Your task to perform on an android device: Go to settings Image 0: 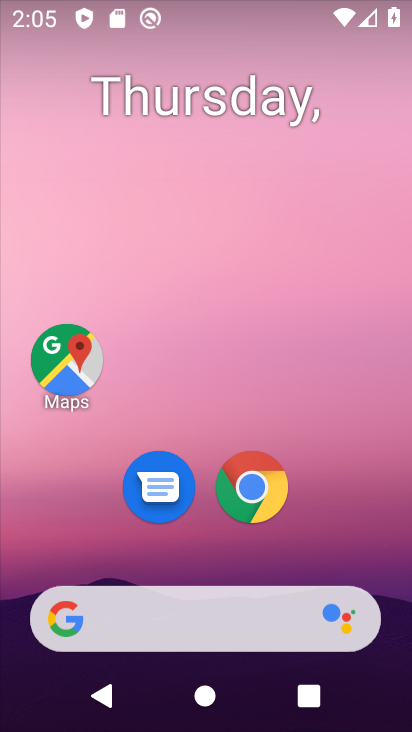
Step 0: drag from (333, 519) to (398, 131)
Your task to perform on an android device: Go to settings Image 1: 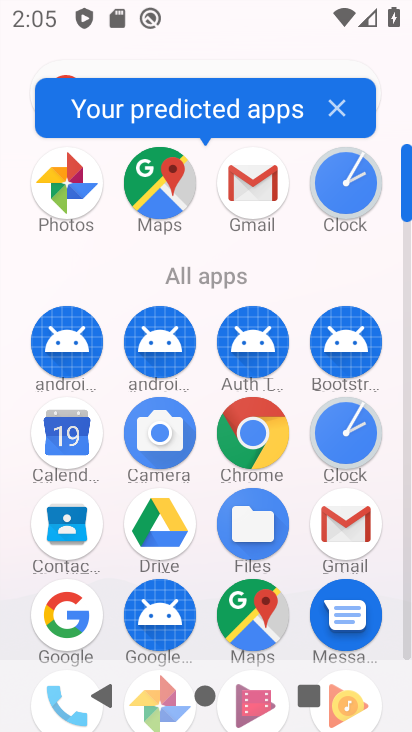
Step 1: drag from (194, 530) to (277, 205)
Your task to perform on an android device: Go to settings Image 2: 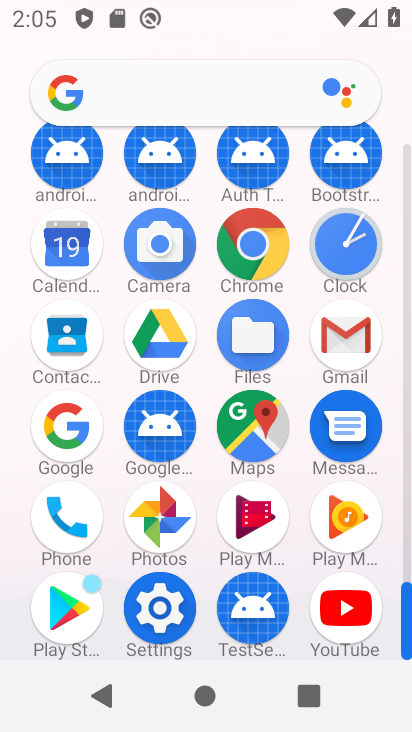
Step 2: click (142, 603)
Your task to perform on an android device: Go to settings Image 3: 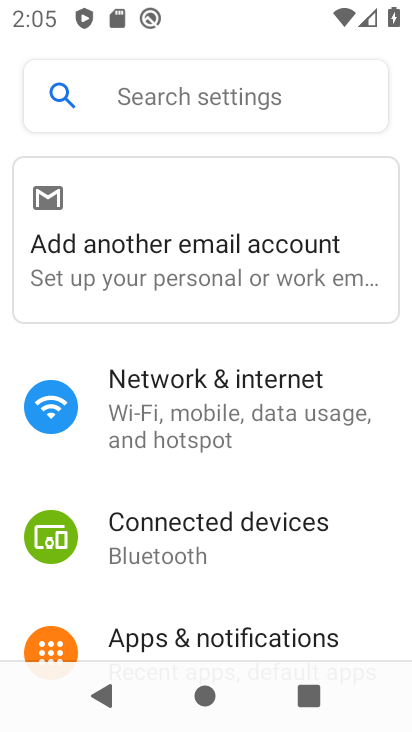
Step 3: task complete